Your task to perform on an android device: remove spam from my inbox in the gmail app Image 0: 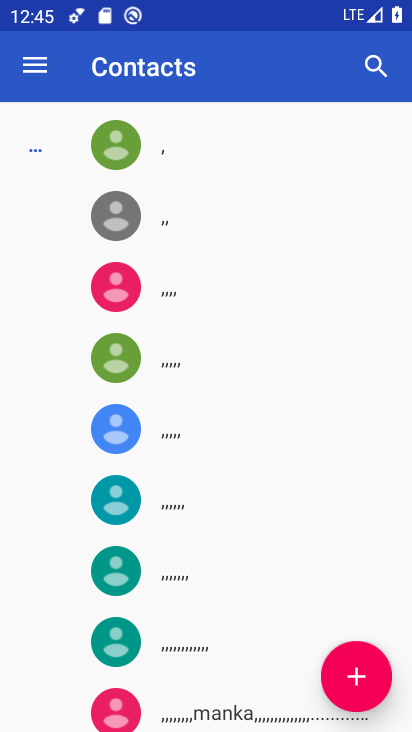
Step 0: press home button
Your task to perform on an android device: remove spam from my inbox in the gmail app Image 1: 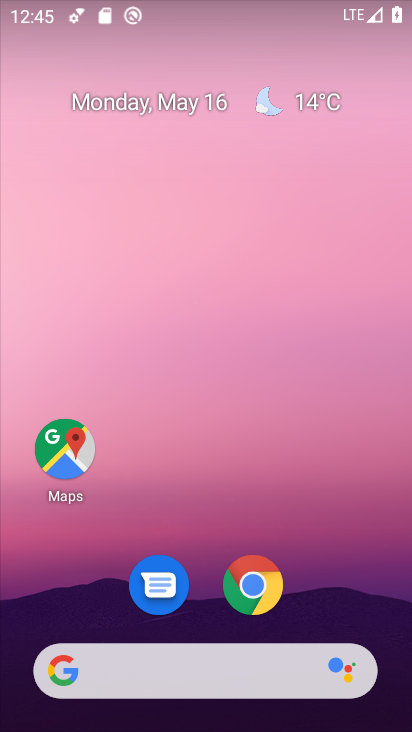
Step 1: drag from (304, 531) to (271, 100)
Your task to perform on an android device: remove spam from my inbox in the gmail app Image 2: 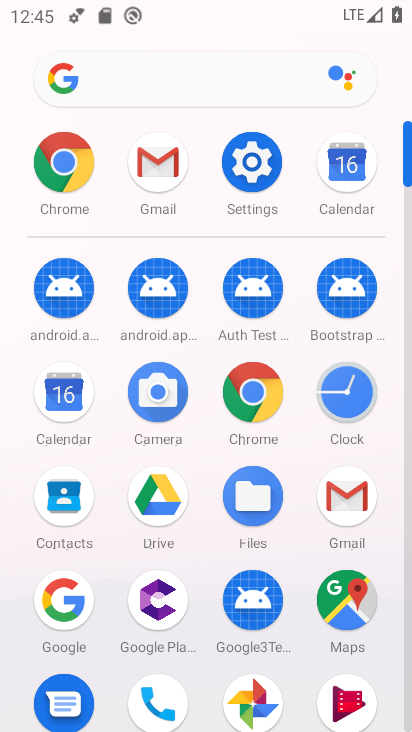
Step 2: click (163, 169)
Your task to perform on an android device: remove spam from my inbox in the gmail app Image 3: 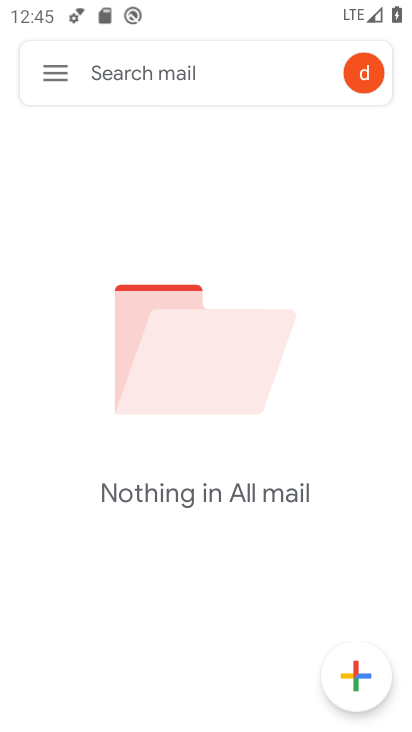
Step 3: click (59, 71)
Your task to perform on an android device: remove spam from my inbox in the gmail app Image 4: 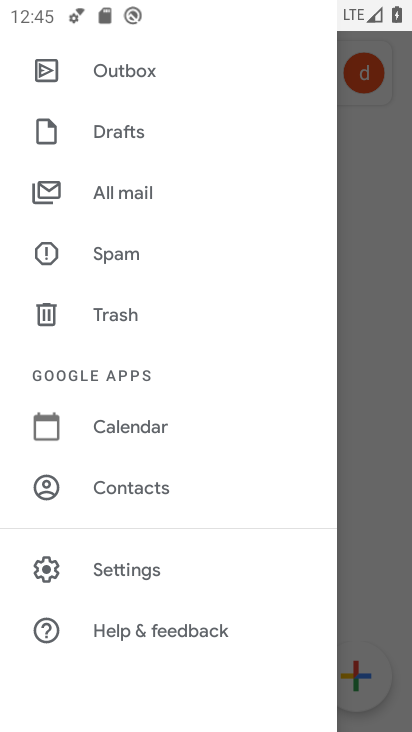
Step 4: click (114, 255)
Your task to perform on an android device: remove spam from my inbox in the gmail app Image 5: 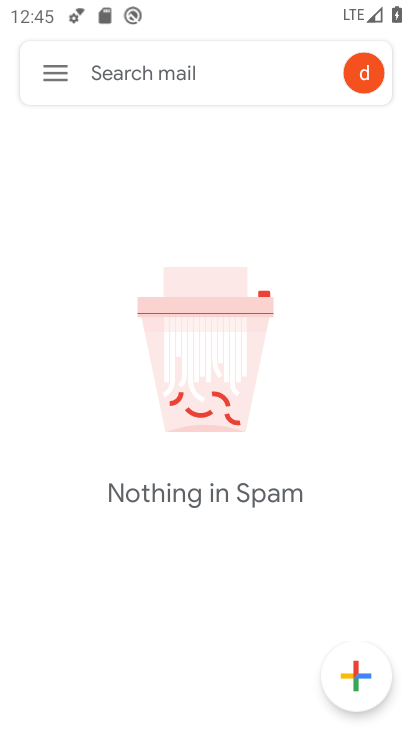
Step 5: task complete